Your task to perform on an android device: turn notification dots on Image 0: 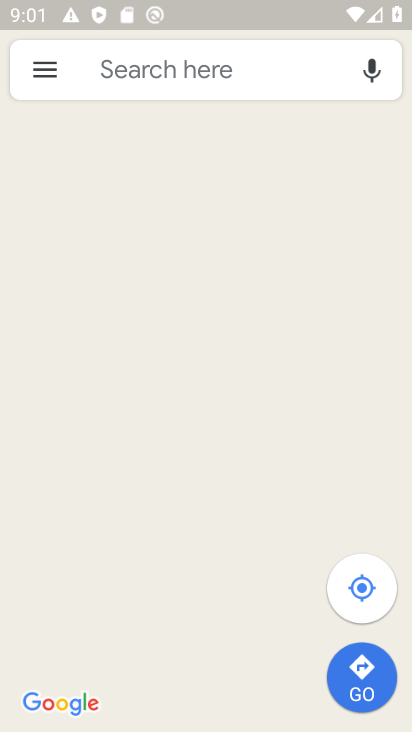
Step 0: press home button
Your task to perform on an android device: turn notification dots on Image 1: 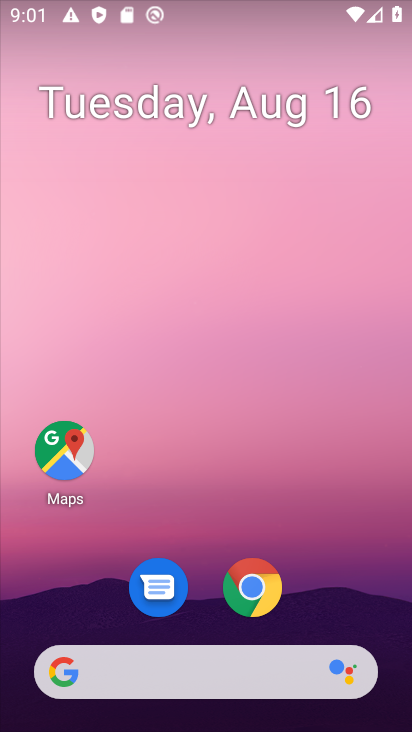
Step 1: drag from (221, 621) to (145, 46)
Your task to perform on an android device: turn notification dots on Image 2: 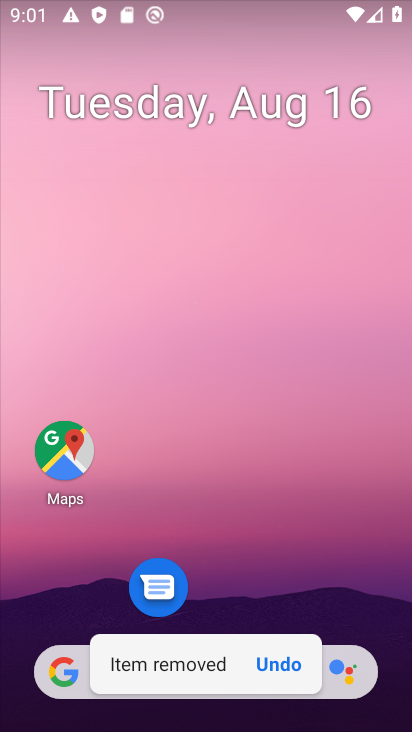
Step 2: click (252, 584)
Your task to perform on an android device: turn notification dots on Image 3: 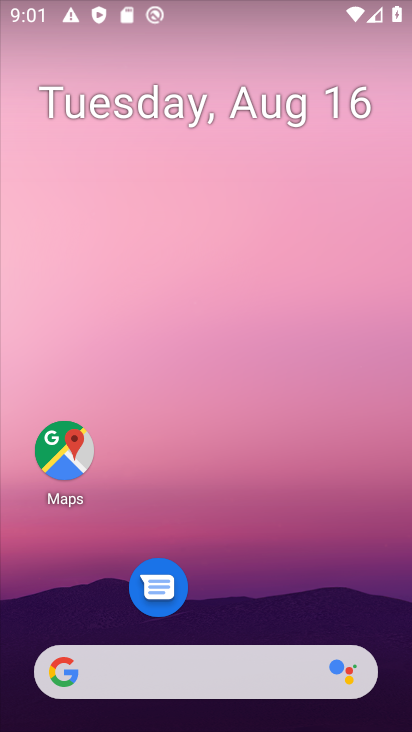
Step 3: drag from (244, 628) to (265, 7)
Your task to perform on an android device: turn notification dots on Image 4: 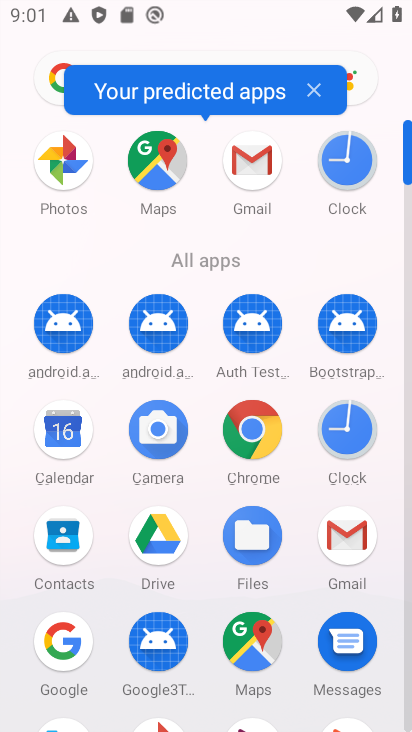
Step 4: drag from (215, 587) to (137, 115)
Your task to perform on an android device: turn notification dots on Image 5: 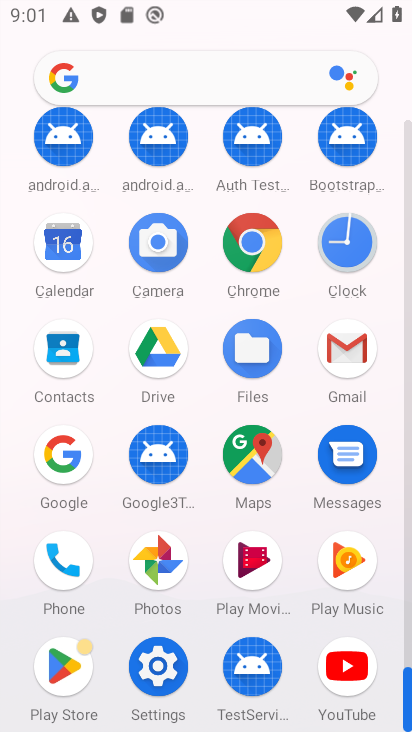
Step 5: click (138, 666)
Your task to perform on an android device: turn notification dots on Image 6: 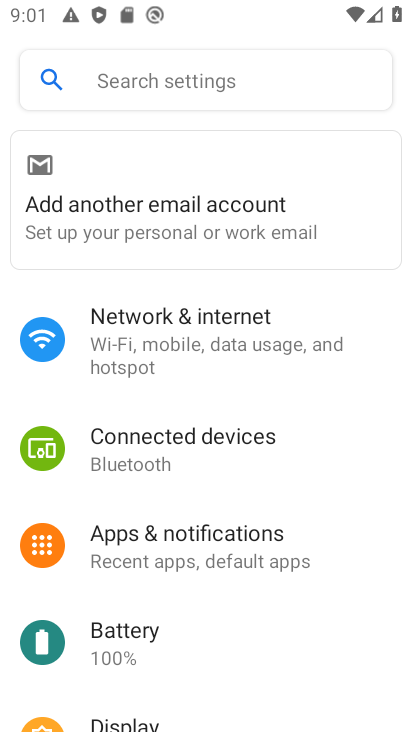
Step 6: click (146, 552)
Your task to perform on an android device: turn notification dots on Image 7: 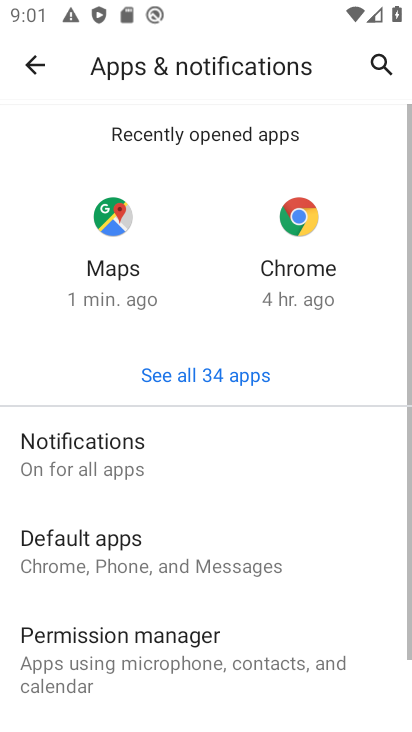
Step 7: click (123, 473)
Your task to perform on an android device: turn notification dots on Image 8: 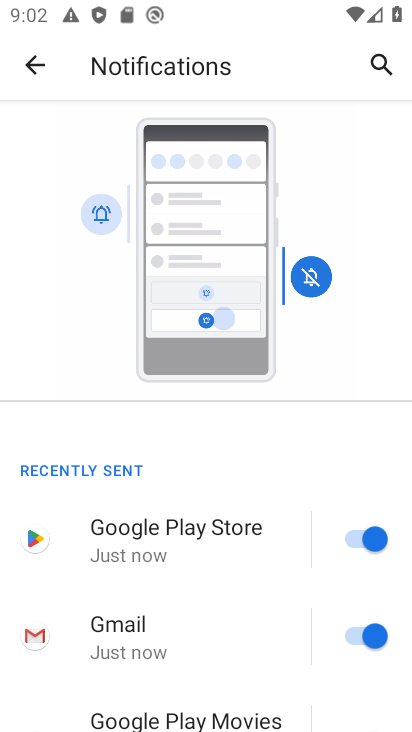
Step 8: drag from (123, 473) to (400, 443)
Your task to perform on an android device: turn notification dots on Image 9: 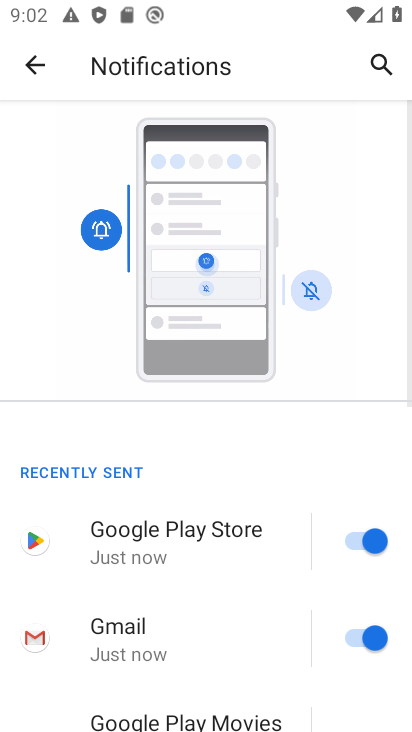
Step 9: drag from (167, 683) to (161, 134)
Your task to perform on an android device: turn notification dots on Image 10: 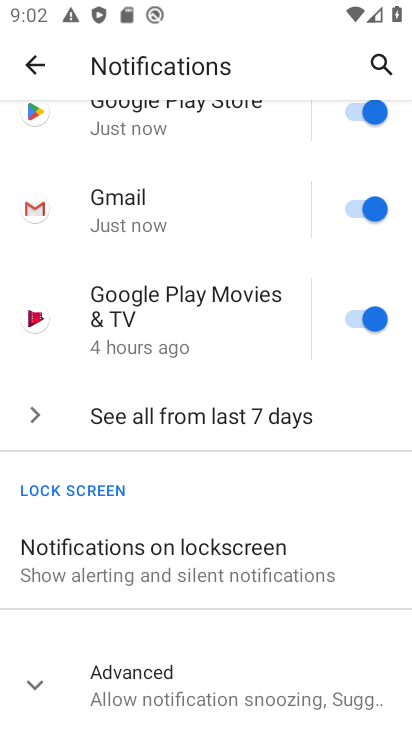
Step 10: click (240, 706)
Your task to perform on an android device: turn notification dots on Image 11: 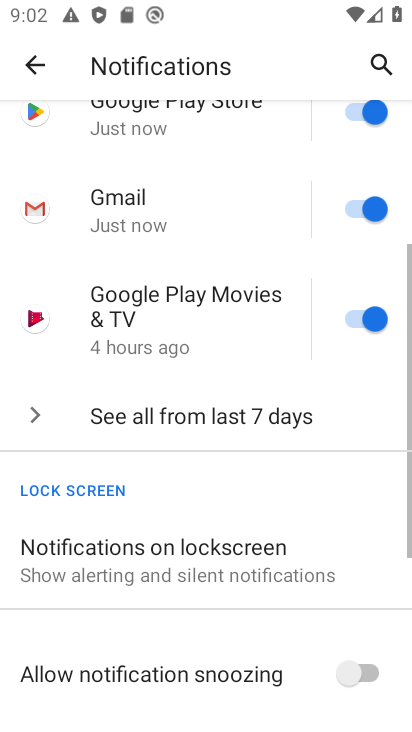
Step 11: task complete